Your task to perform on an android device: check google app version Image 0: 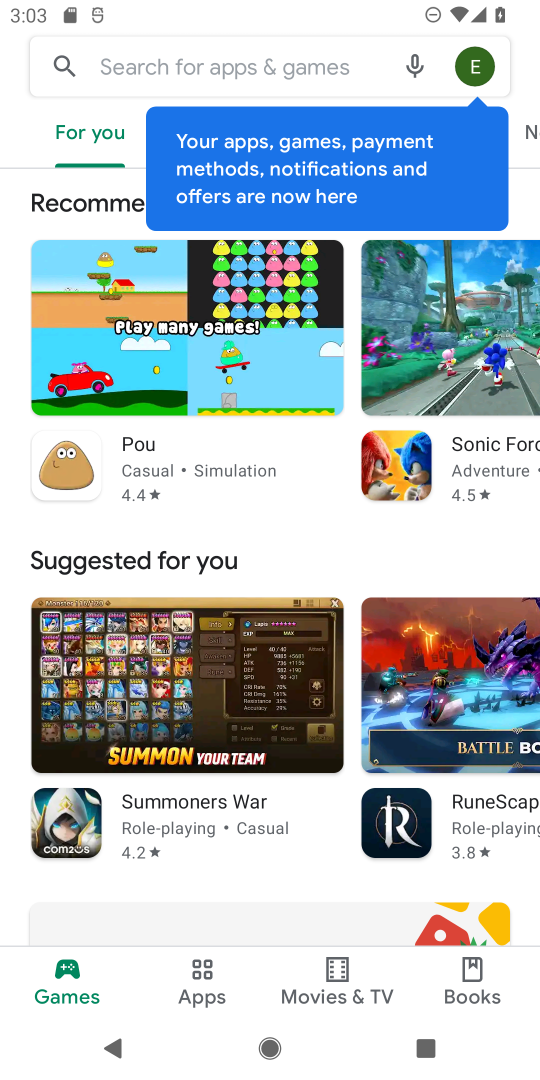
Step 0: press home button
Your task to perform on an android device: check google app version Image 1: 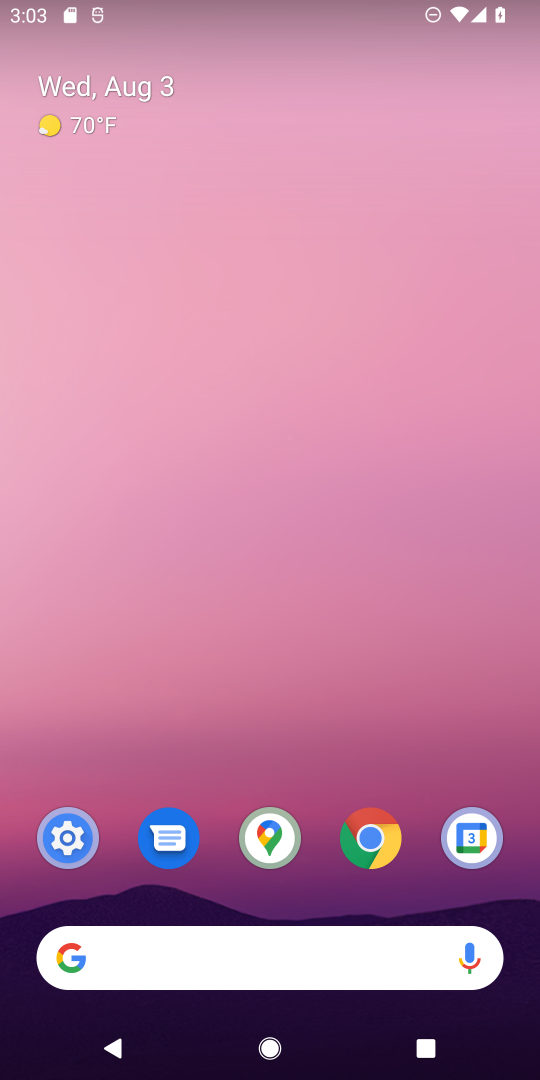
Step 1: drag from (263, 780) to (330, 297)
Your task to perform on an android device: check google app version Image 2: 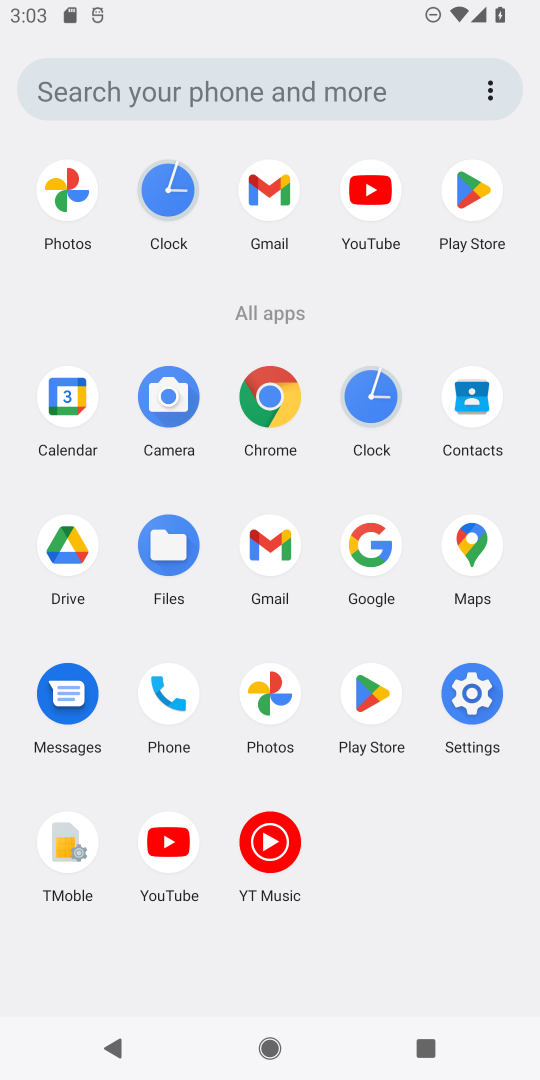
Step 2: click (383, 560)
Your task to perform on an android device: check google app version Image 3: 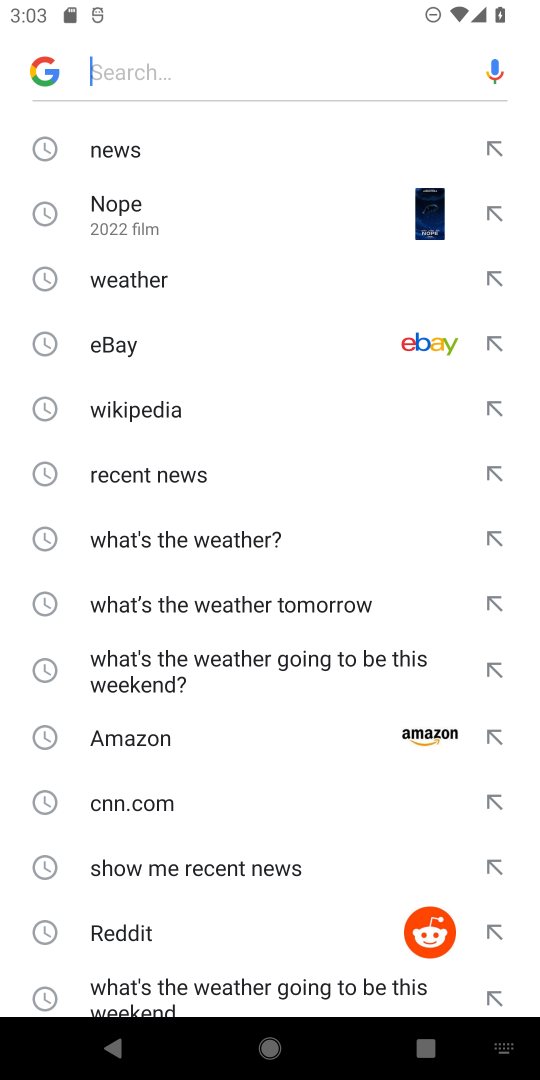
Step 3: click (49, 70)
Your task to perform on an android device: check google app version Image 4: 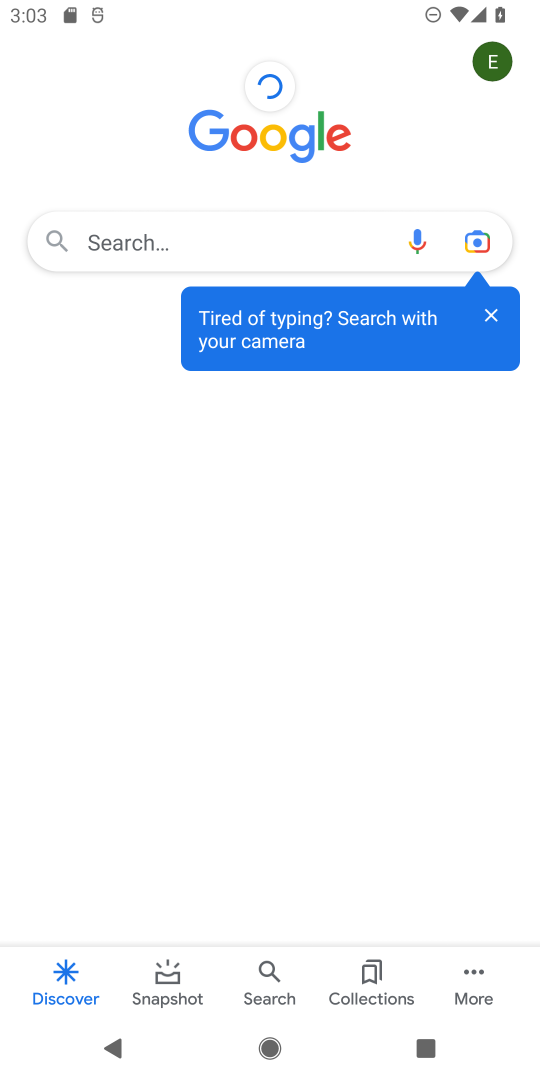
Step 4: click (494, 64)
Your task to perform on an android device: check google app version Image 5: 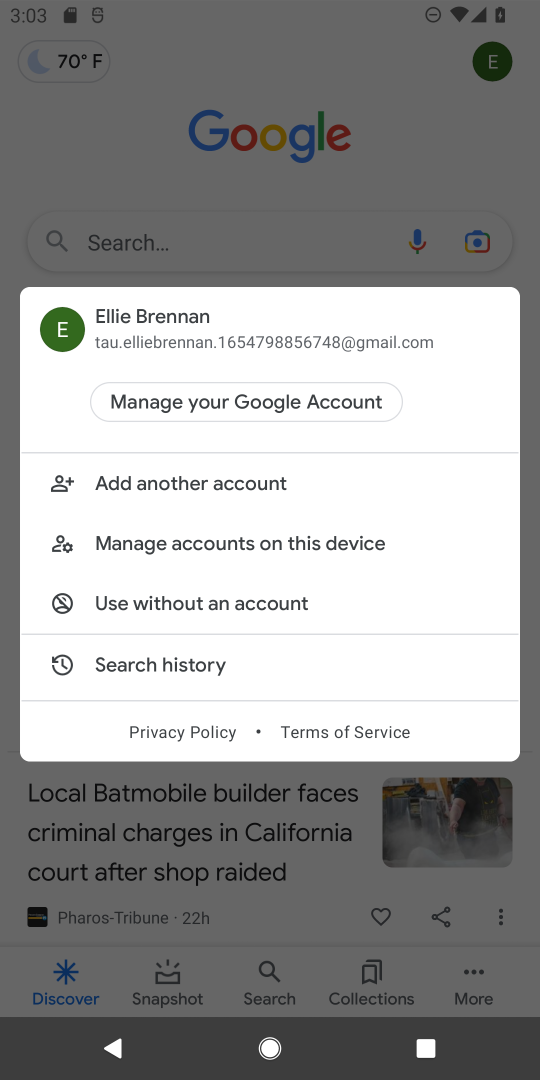
Step 5: click (446, 973)
Your task to perform on an android device: check google app version Image 6: 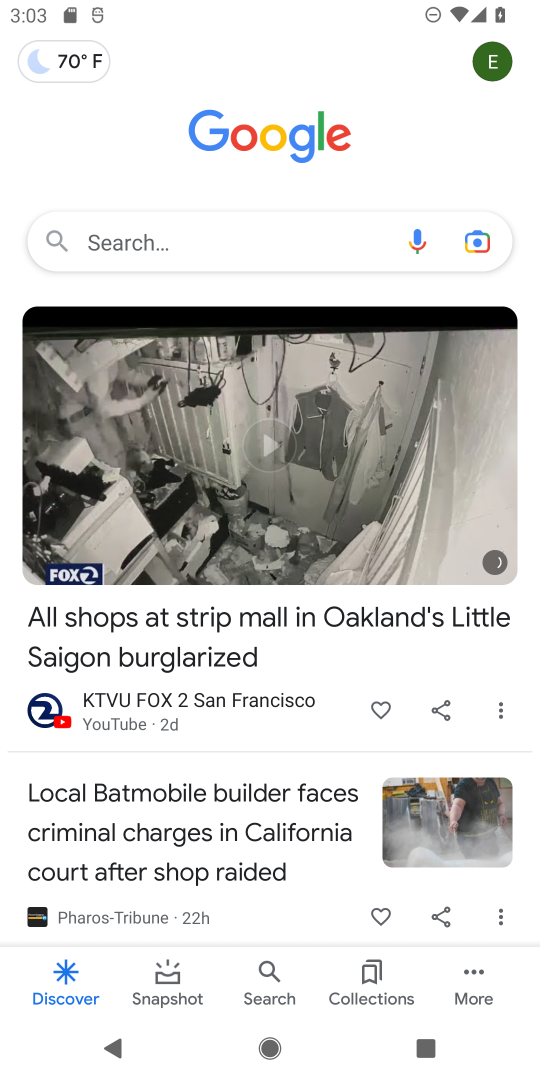
Step 6: click (439, 973)
Your task to perform on an android device: check google app version Image 7: 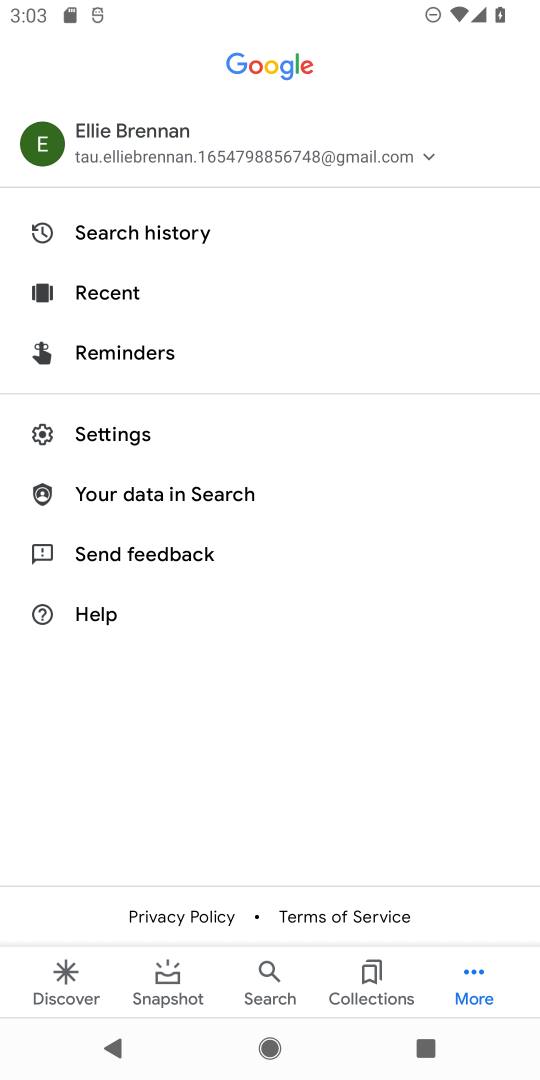
Step 7: click (175, 422)
Your task to perform on an android device: check google app version Image 8: 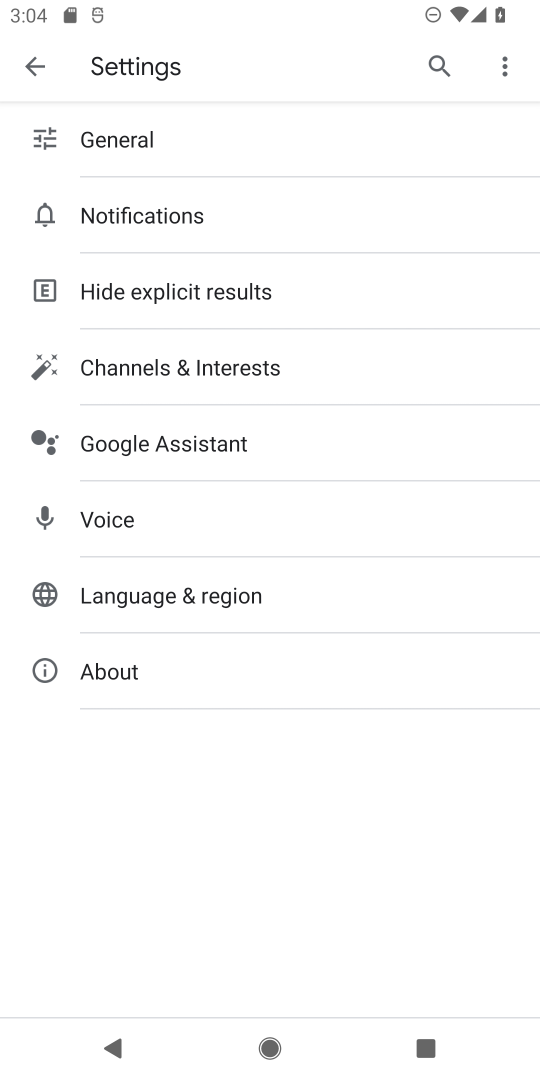
Step 8: click (214, 659)
Your task to perform on an android device: check google app version Image 9: 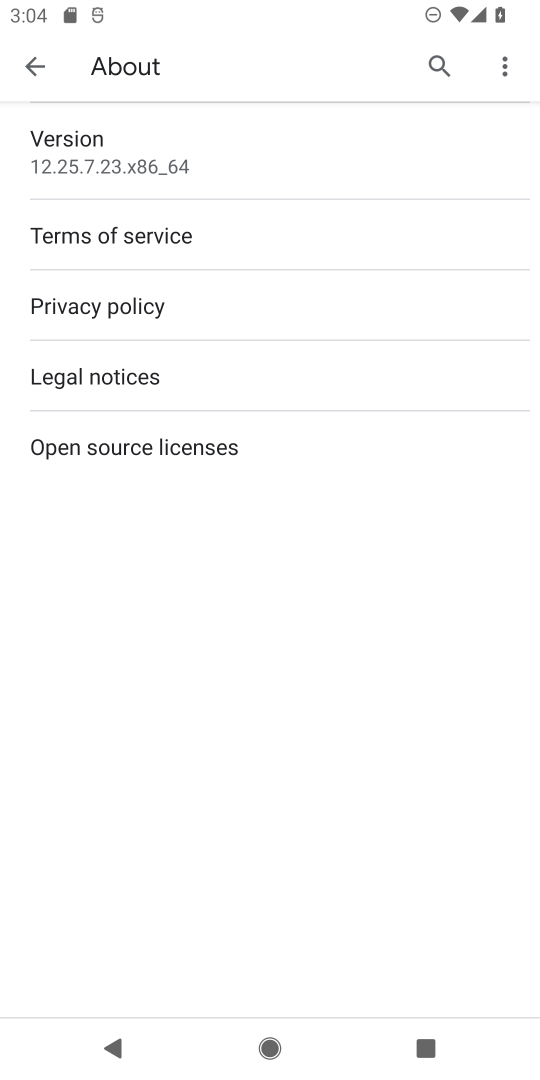
Step 9: click (266, 106)
Your task to perform on an android device: check google app version Image 10: 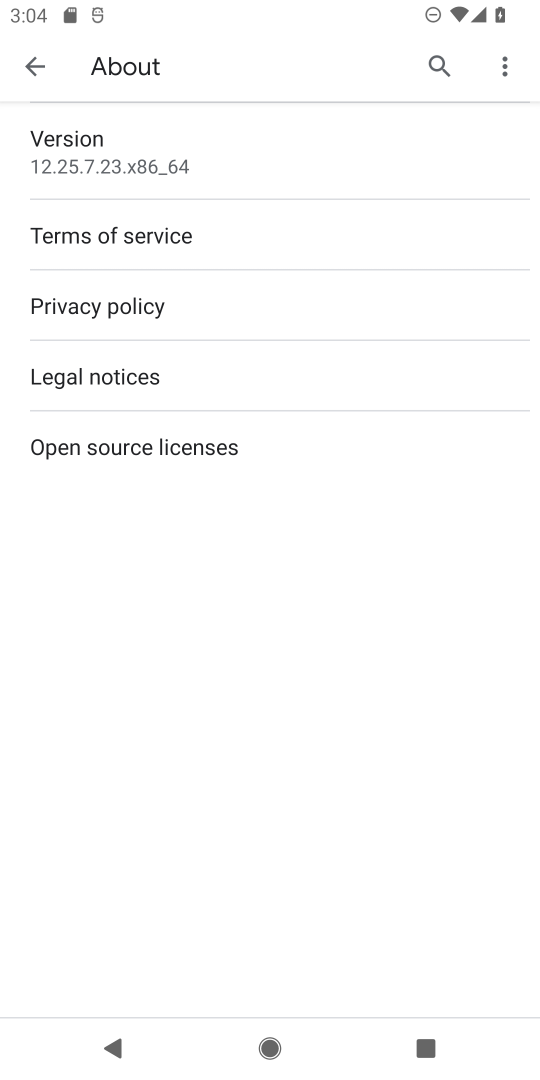
Step 10: task complete